Your task to perform on an android device: Search for pizza restaurants on Maps Image 0: 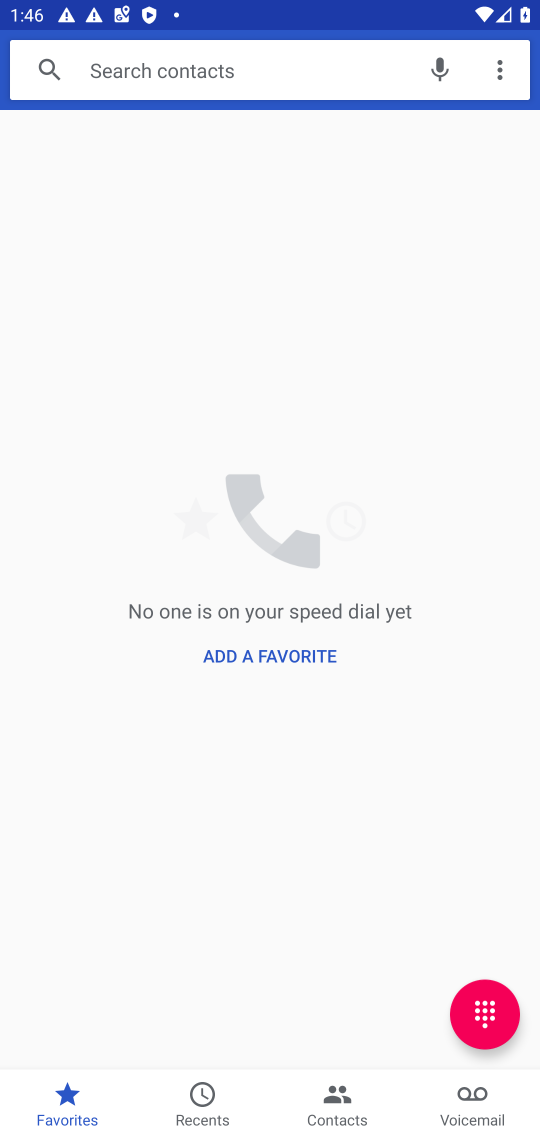
Step 0: press home button
Your task to perform on an android device: Search for pizza restaurants on Maps Image 1: 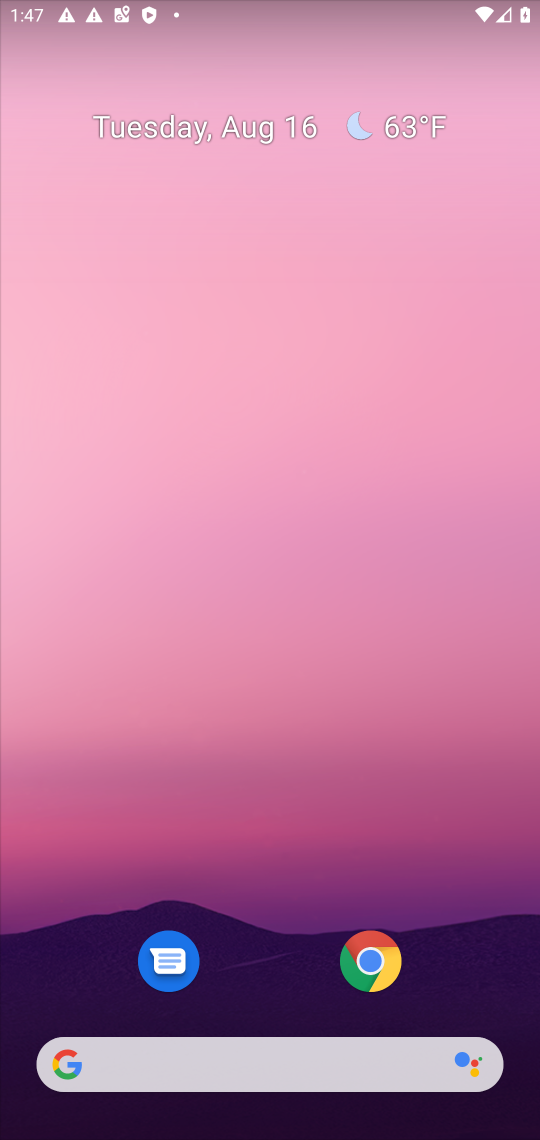
Step 1: drag from (476, 993) to (286, 91)
Your task to perform on an android device: Search for pizza restaurants on Maps Image 2: 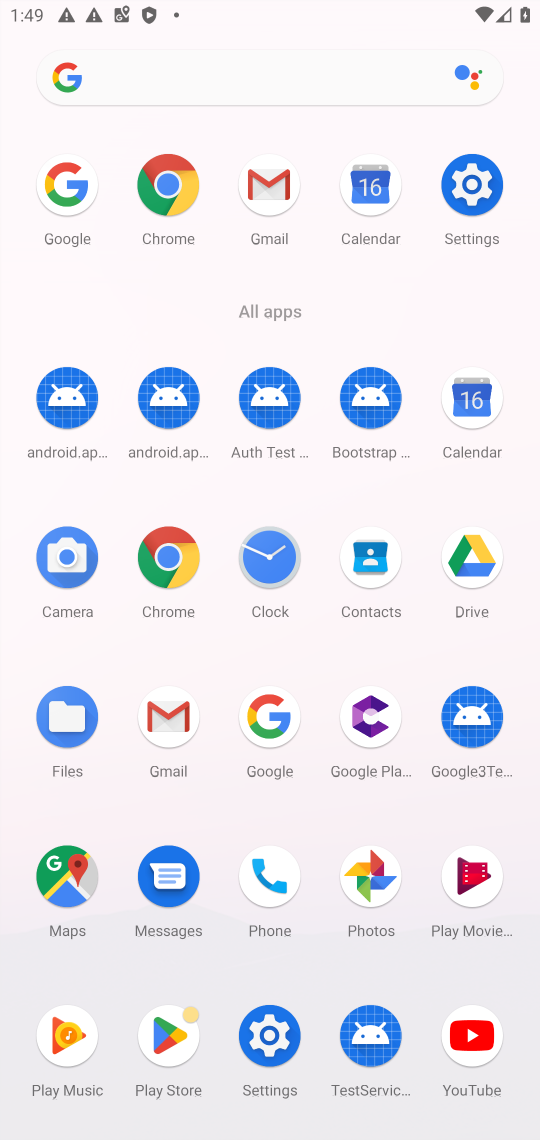
Step 2: click (69, 883)
Your task to perform on an android device: Search for pizza restaurants on Maps Image 3: 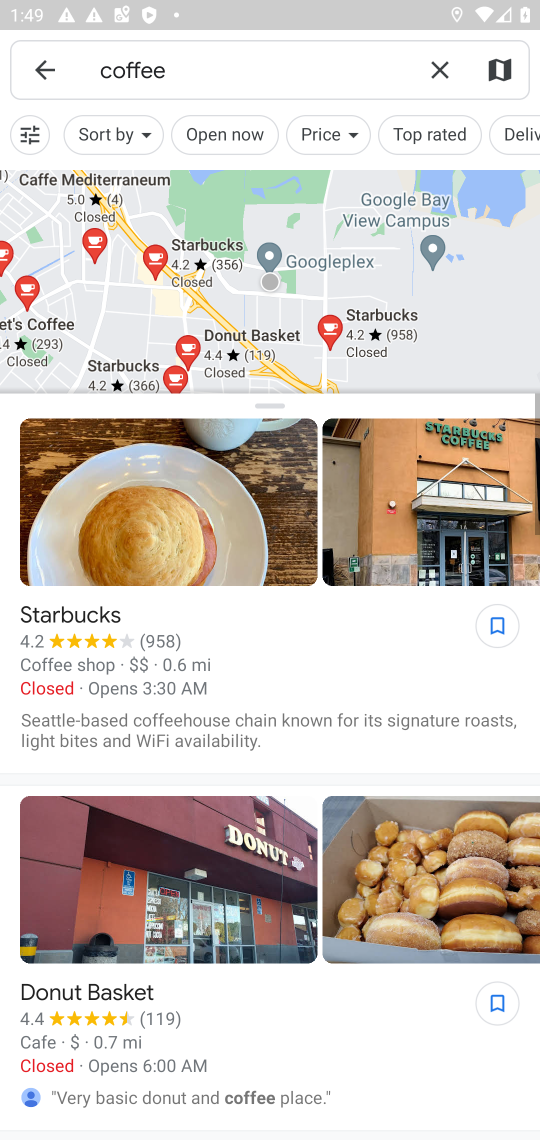
Step 3: click (442, 76)
Your task to perform on an android device: Search for pizza restaurants on Maps Image 4: 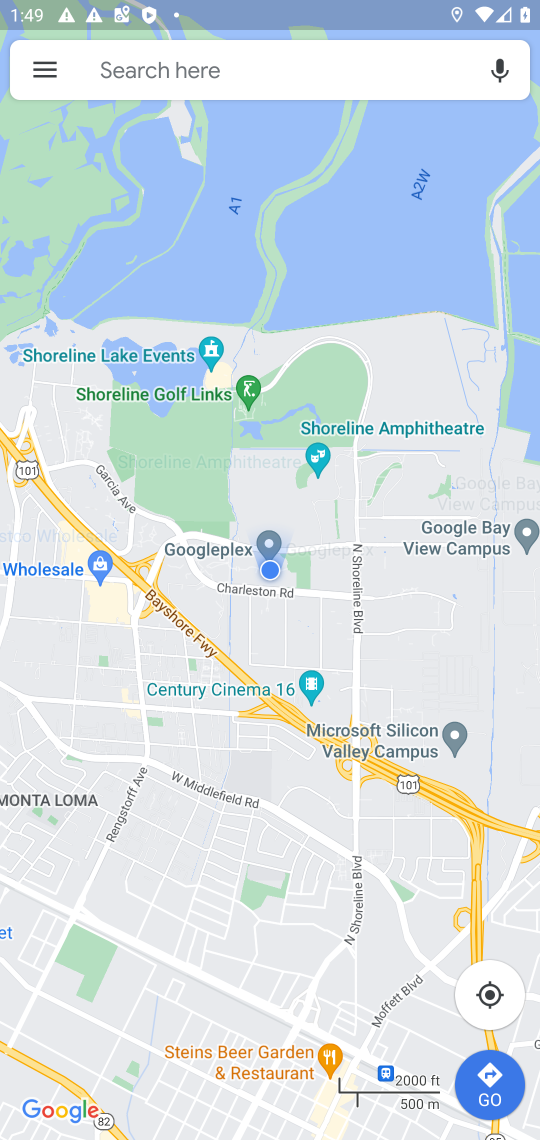
Step 4: click (125, 65)
Your task to perform on an android device: Search for pizza restaurants on Maps Image 5: 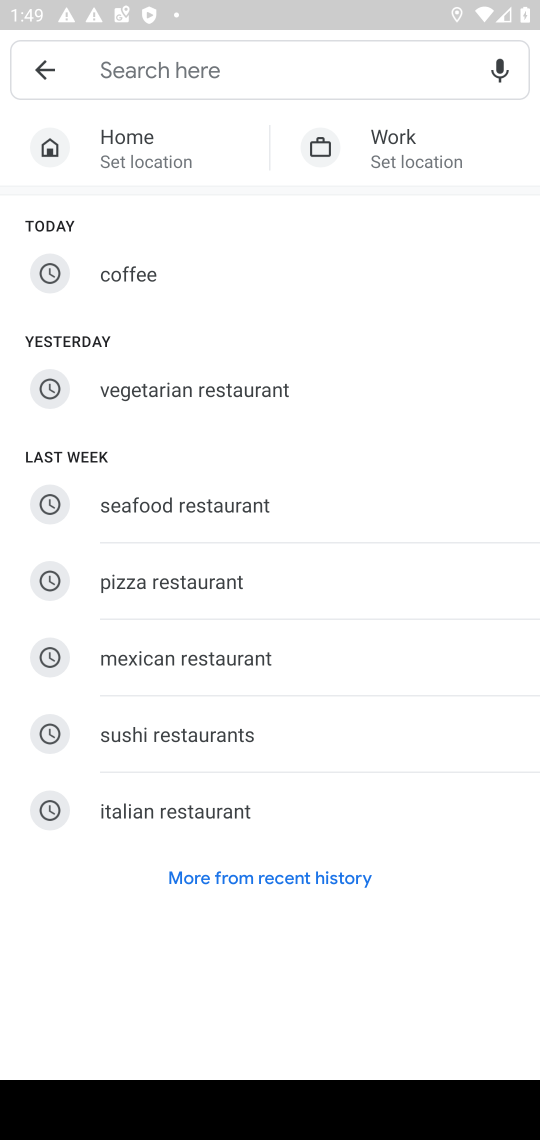
Step 5: click (164, 594)
Your task to perform on an android device: Search for pizza restaurants on Maps Image 6: 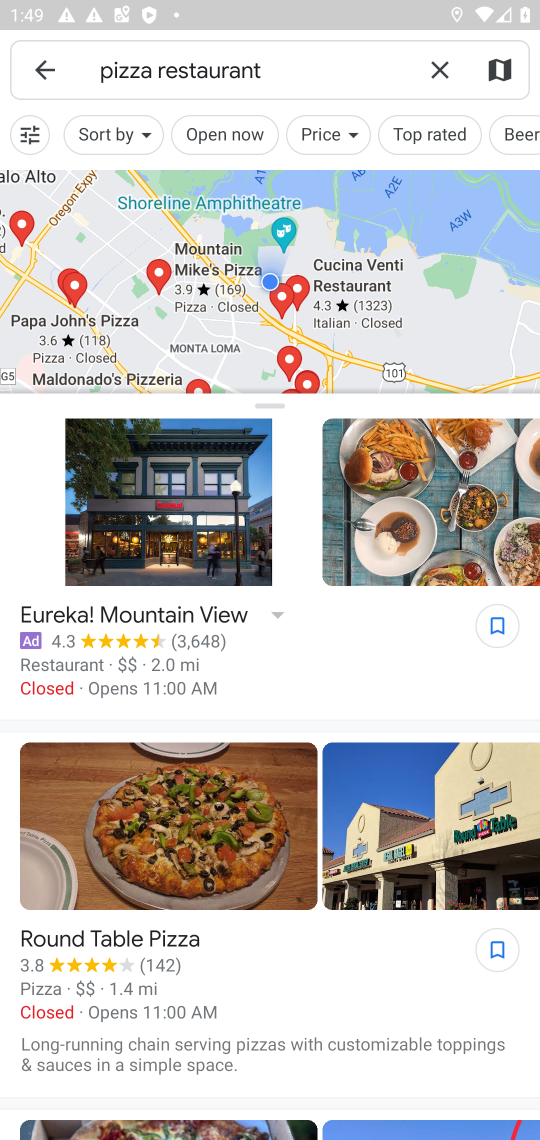
Step 6: task complete